Your task to perform on an android device: turn off data saver in the chrome app Image 0: 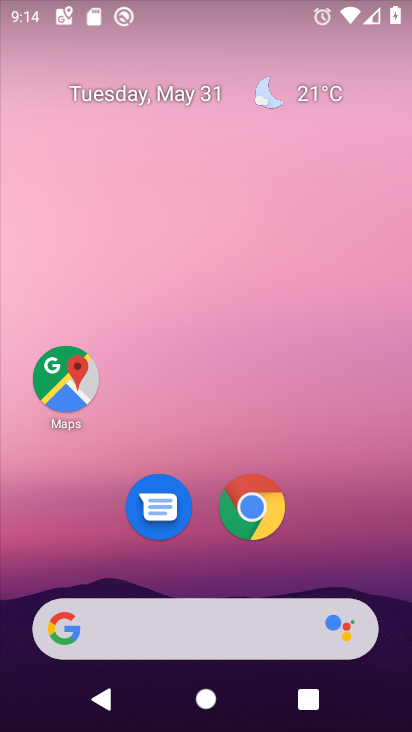
Step 0: drag from (279, 578) to (261, 272)
Your task to perform on an android device: turn off data saver in the chrome app Image 1: 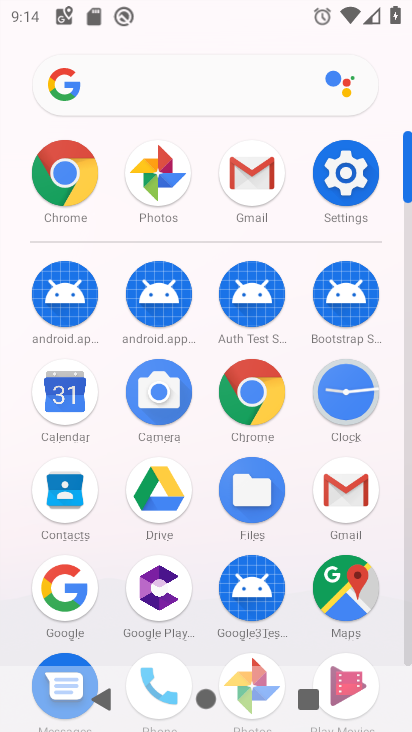
Step 1: click (64, 178)
Your task to perform on an android device: turn off data saver in the chrome app Image 2: 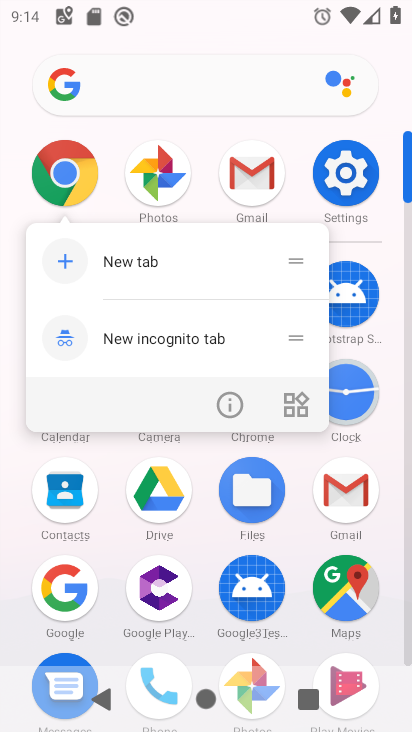
Step 2: click (126, 255)
Your task to perform on an android device: turn off data saver in the chrome app Image 3: 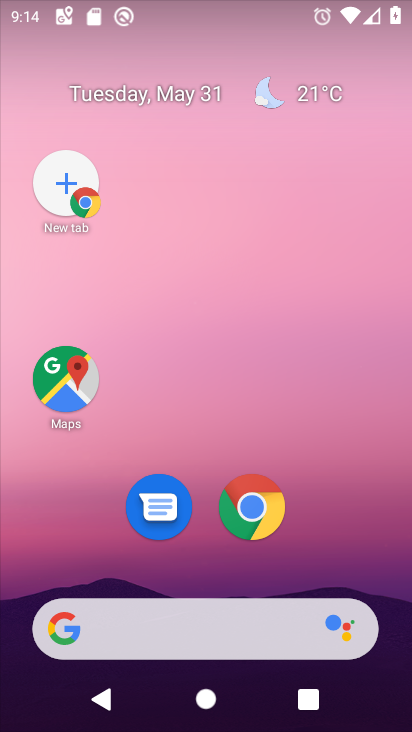
Step 3: drag from (257, 617) to (201, 107)
Your task to perform on an android device: turn off data saver in the chrome app Image 4: 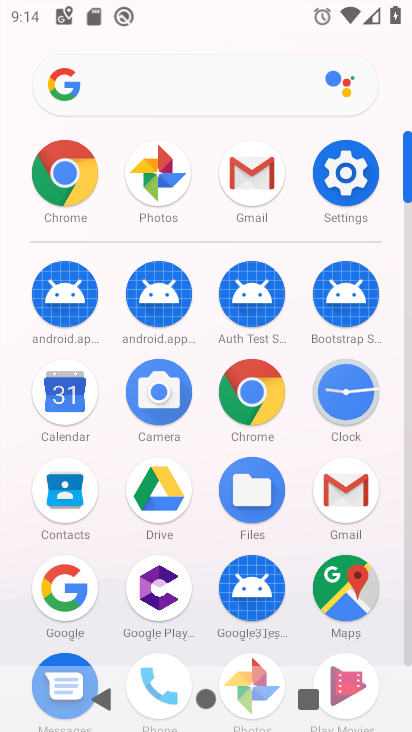
Step 4: click (60, 185)
Your task to perform on an android device: turn off data saver in the chrome app Image 5: 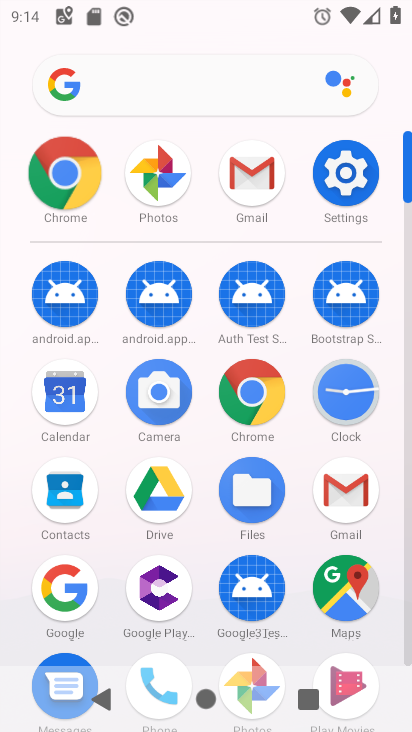
Step 5: click (64, 185)
Your task to perform on an android device: turn off data saver in the chrome app Image 6: 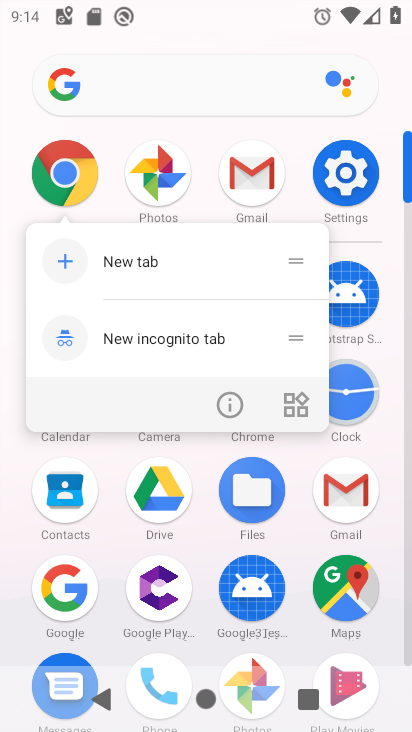
Step 6: click (70, 179)
Your task to perform on an android device: turn off data saver in the chrome app Image 7: 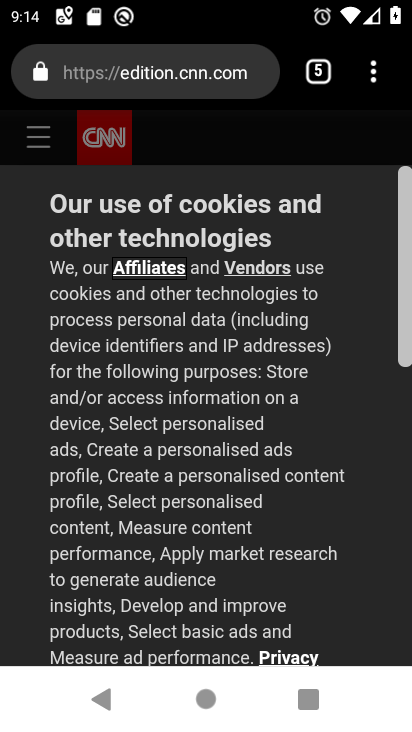
Step 7: drag from (370, 77) to (99, 499)
Your task to perform on an android device: turn off data saver in the chrome app Image 8: 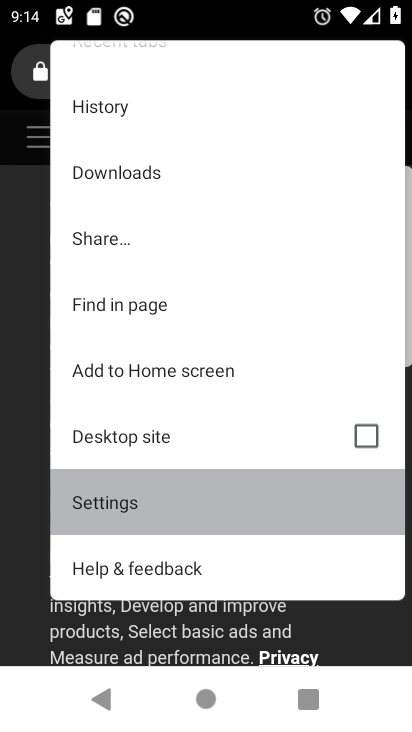
Step 8: click (99, 500)
Your task to perform on an android device: turn off data saver in the chrome app Image 9: 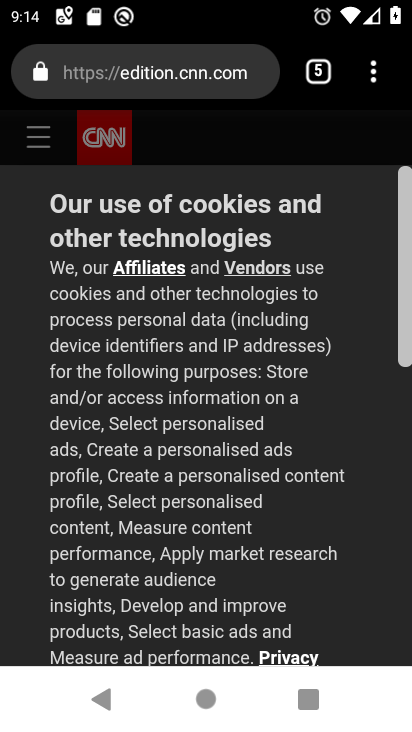
Step 9: click (101, 500)
Your task to perform on an android device: turn off data saver in the chrome app Image 10: 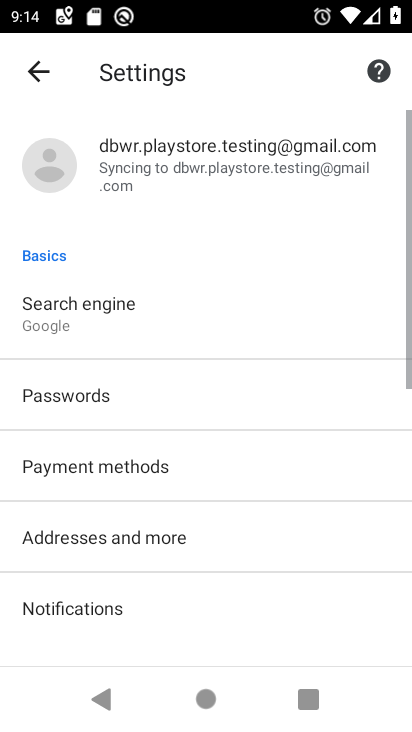
Step 10: drag from (179, 511) to (105, 101)
Your task to perform on an android device: turn off data saver in the chrome app Image 11: 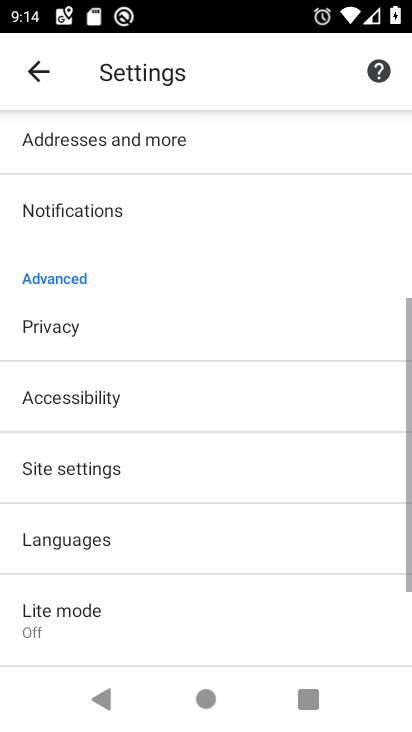
Step 11: drag from (215, 476) to (191, 83)
Your task to perform on an android device: turn off data saver in the chrome app Image 12: 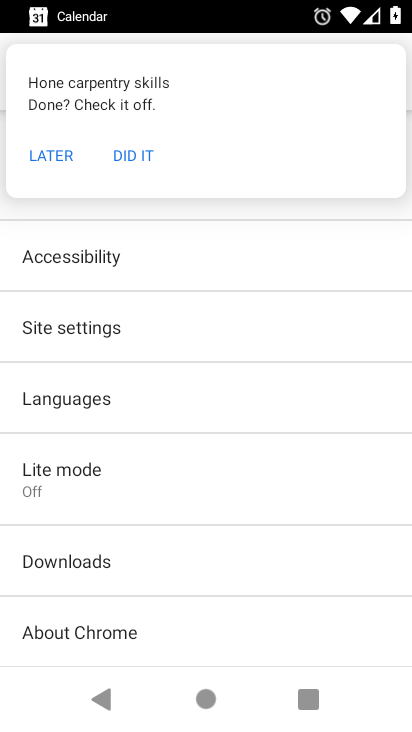
Step 12: click (47, 467)
Your task to perform on an android device: turn off data saver in the chrome app Image 13: 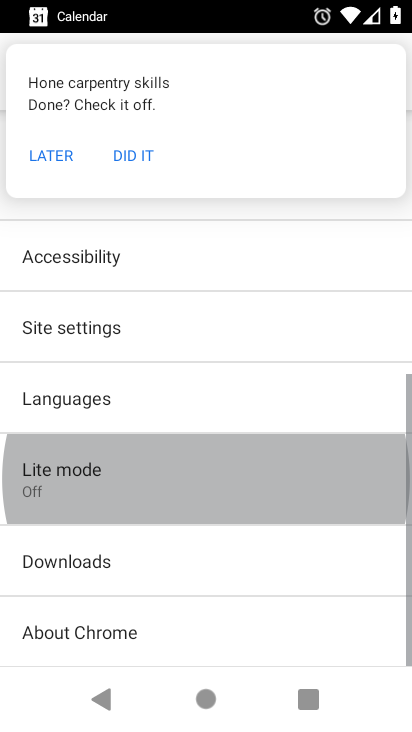
Step 13: click (47, 467)
Your task to perform on an android device: turn off data saver in the chrome app Image 14: 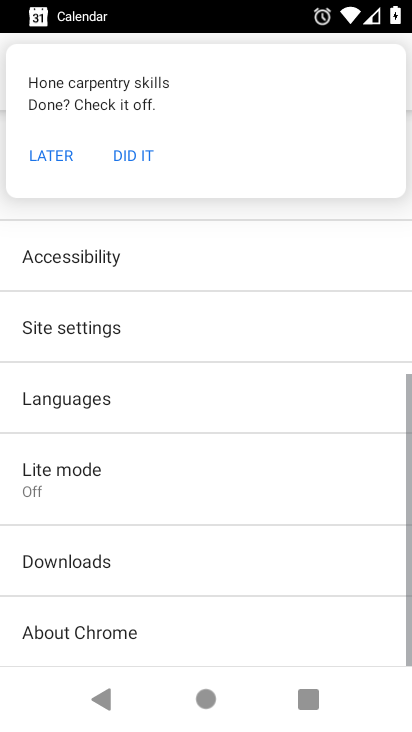
Step 14: click (47, 467)
Your task to perform on an android device: turn off data saver in the chrome app Image 15: 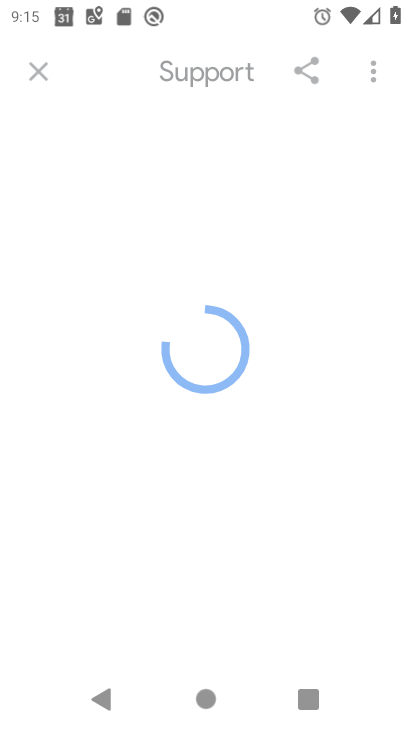
Step 15: task complete